Your task to perform on an android device: Open accessibility settings Image 0: 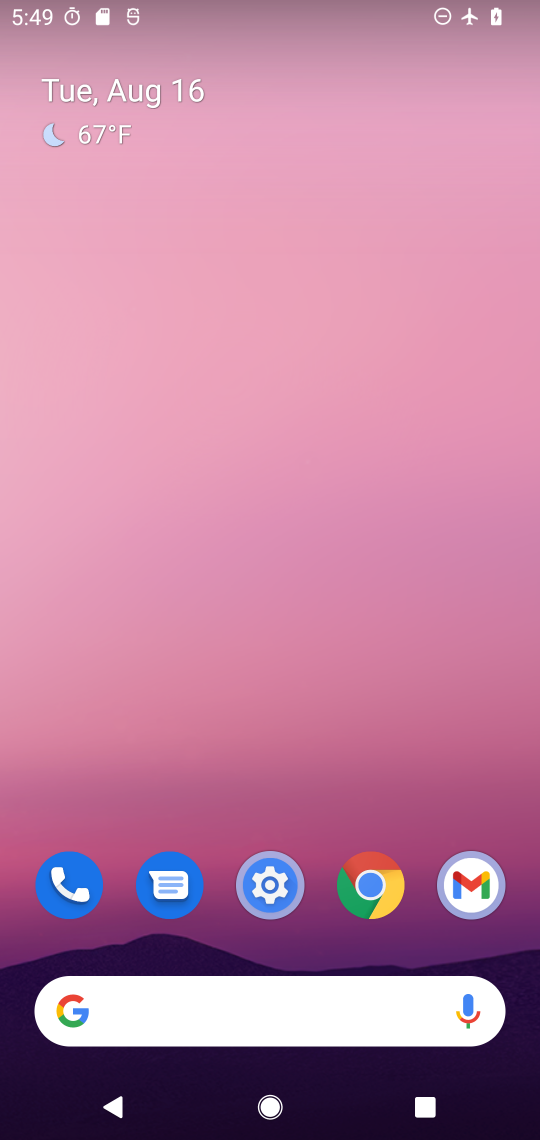
Step 0: drag from (262, 407) to (262, 260)
Your task to perform on an android device: Open accessibility settings Image 1: 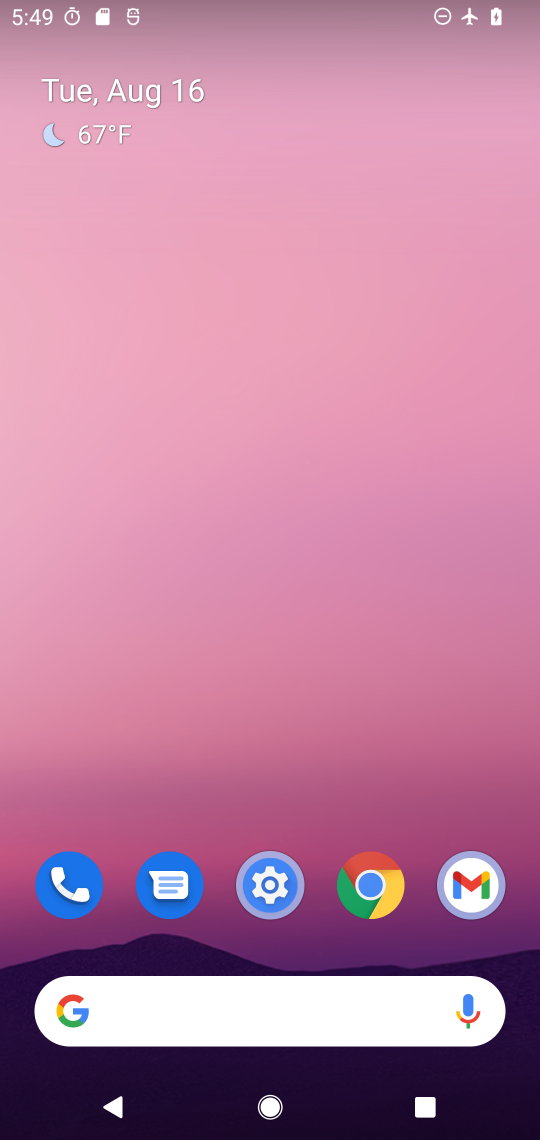
Step 1: drag from (232, 945) to (222, 166)
Your task to perform on an android device: Open accessibility settings Image 2: 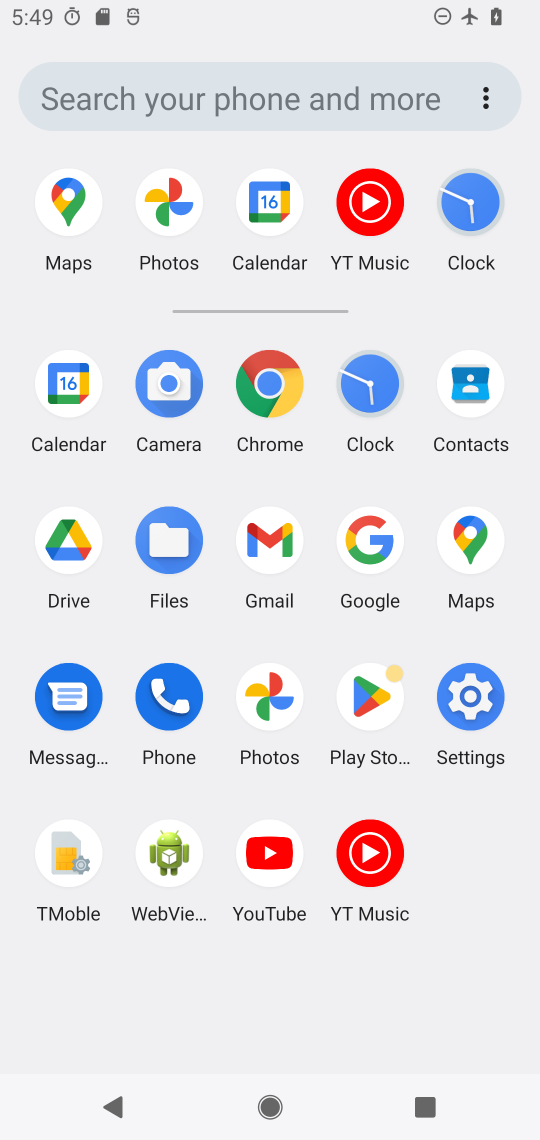
Step 2: click (473, 681)
Your task to perform on an android device: Open accessibility settings Image 3: 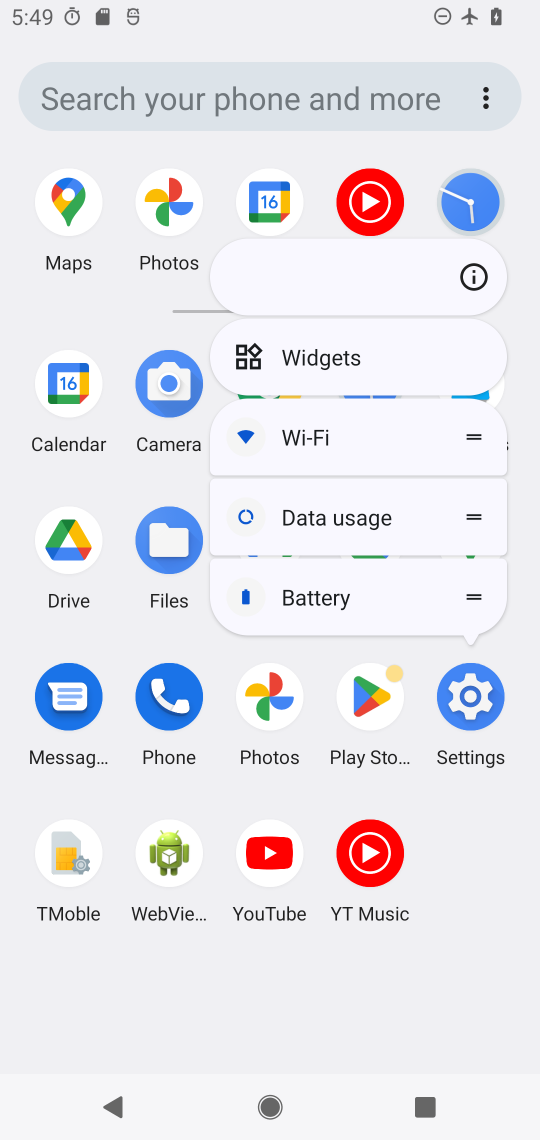
Step 3: click (473, 681)
Your task to perform on an android device: Open accessibility settings Image 4: 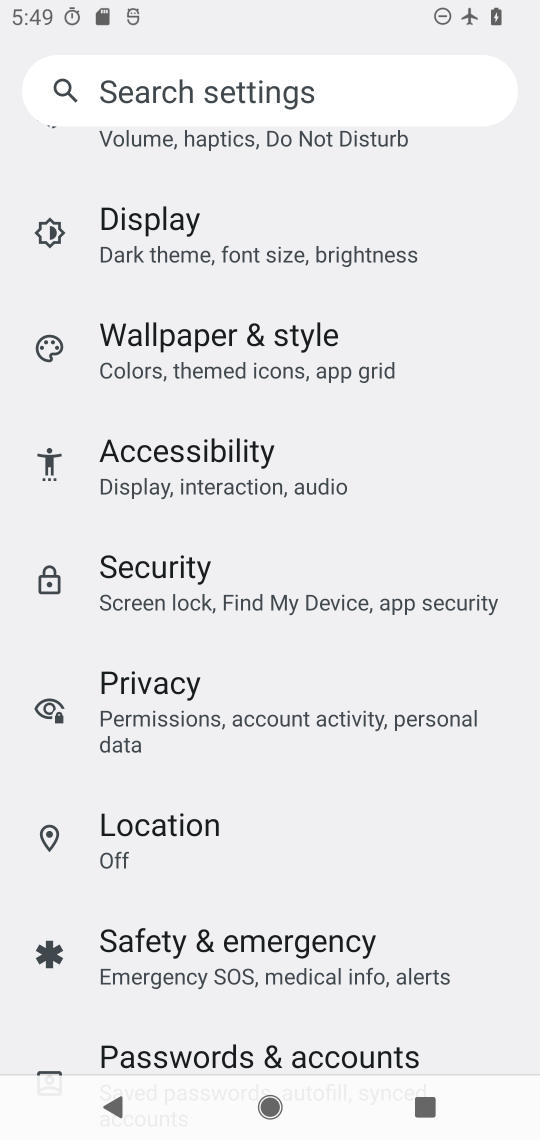
Step 4: click (249, 463)
Your task to perform on an android device: Open accessibility settings Image 5: 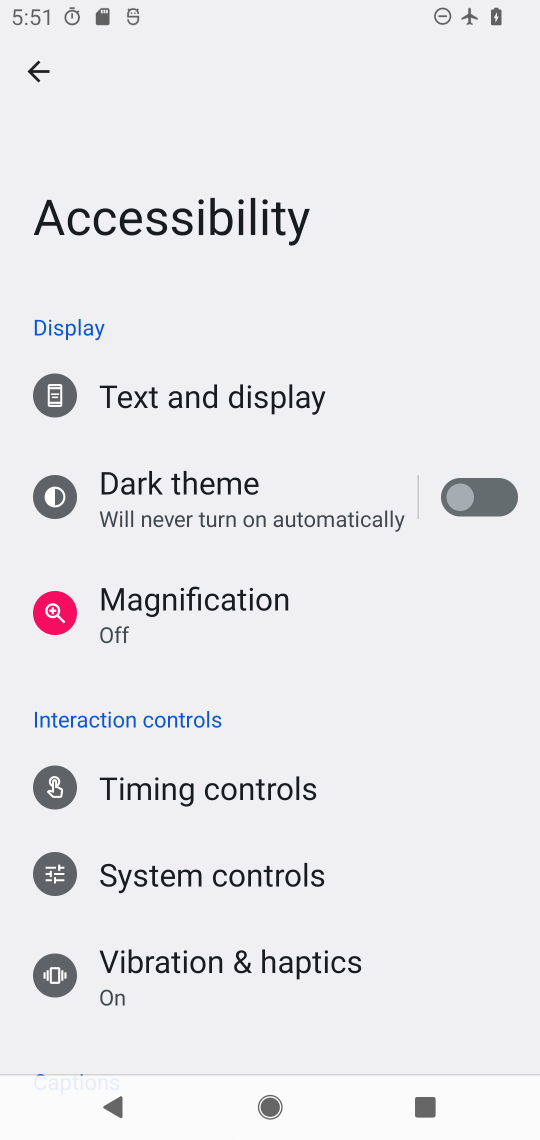
Step 5: task complete